Your task to perform on an android device: turn pop-ups off in chrome Image 0: 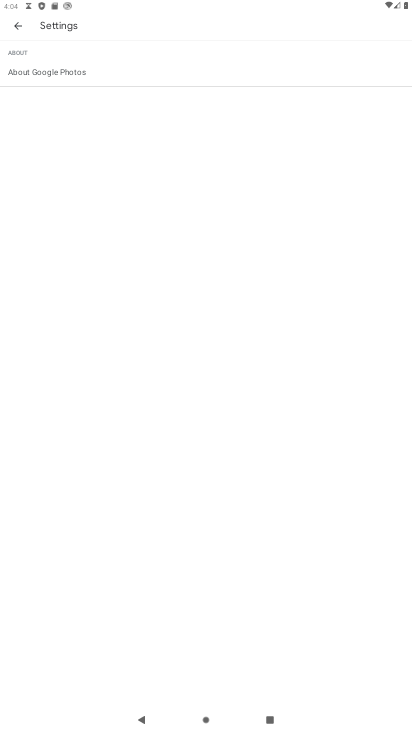
Step 0: press home button
Your task to perform on an android device: turn pop-ups off in chrome Image 1: 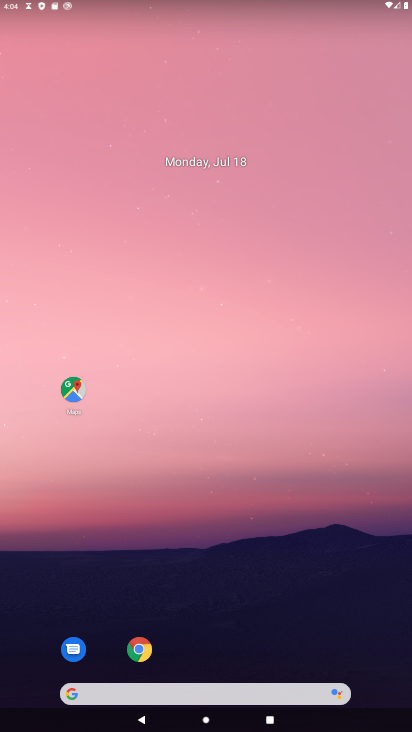
Step 1: click (138, 650)
Your task to perform on an android device: turn pop-ups off in chrome Image 2: 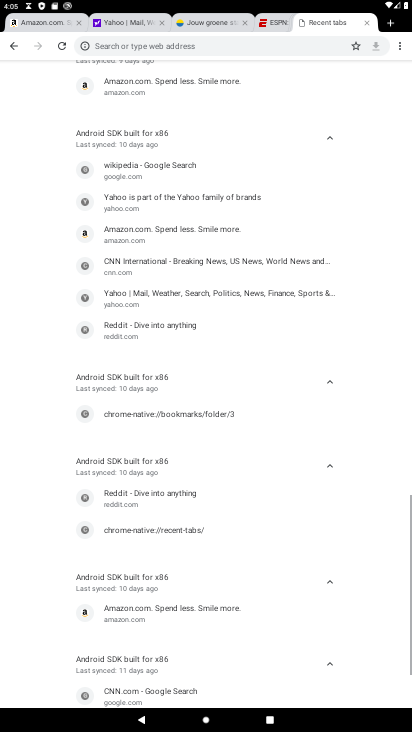
Step 2: drag from (394, 41) to (309, 237)
Your task to perform on an android device: turn pop-ups off in chrome Image 3: 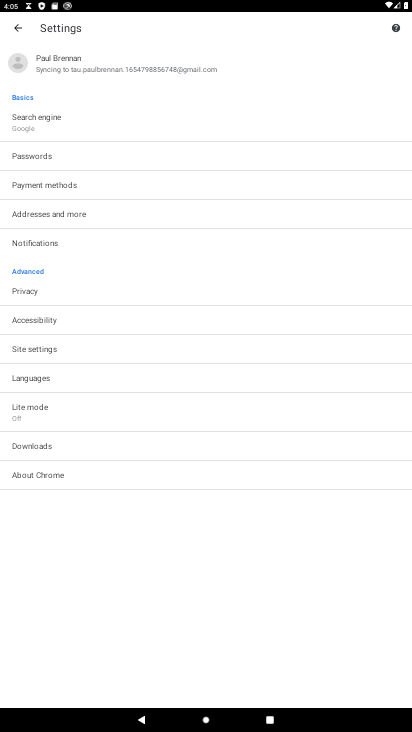
Step 3: click (35, 342)
Your task to perform on an android device: turn pop-ups off in chrome Image 4: 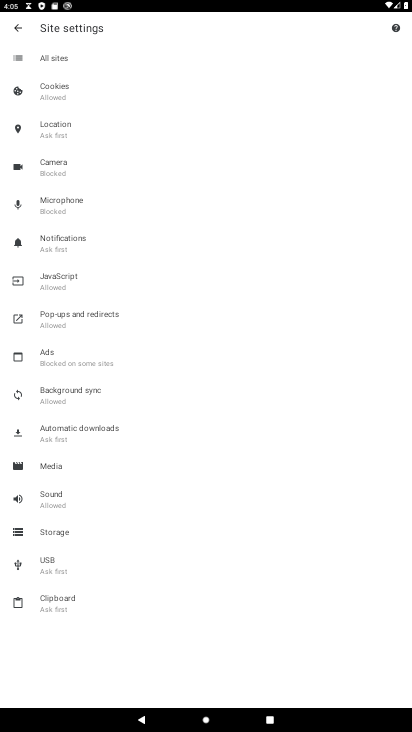
Step 4: click (75, 316)
Your task to perform on an android device: turn pop-ups off in chrome Image 5: 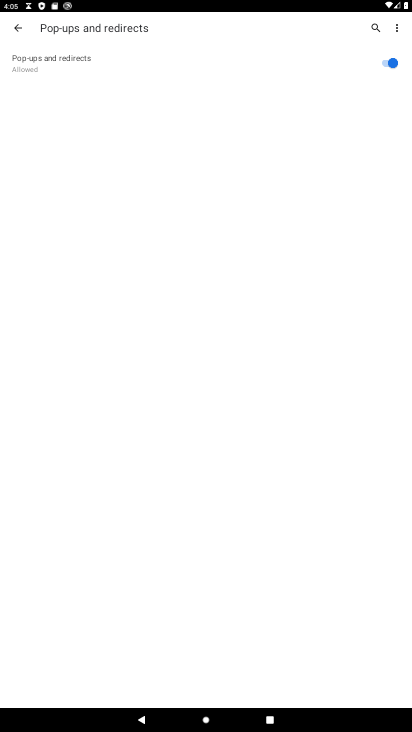
Step 5: click (384, 58)
Your task to perform on an android device: turn pop-ups off in chrome Image 6: 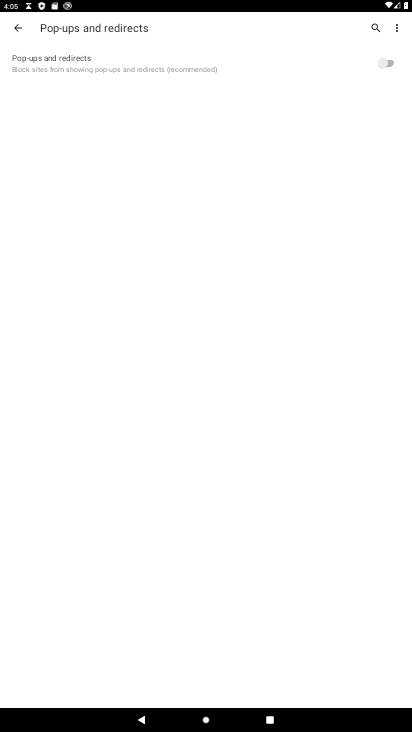
Step 6: task complete